Your task to perform on an android device: toggle airplane mode Image 0: 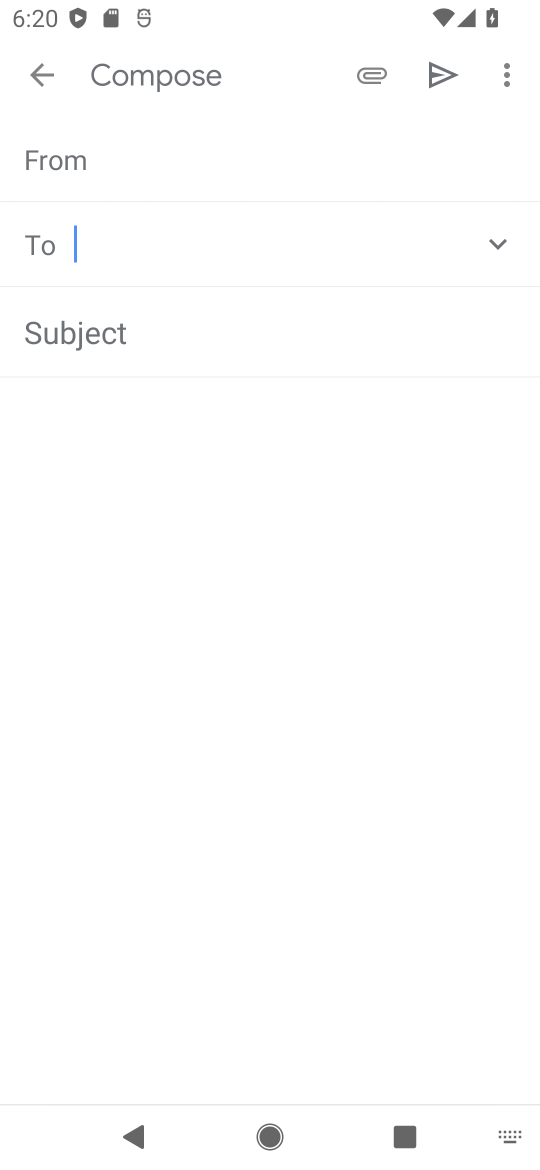
Step 0: press home button
Your task to perform on an android device: toggle airplane mode Image 1: 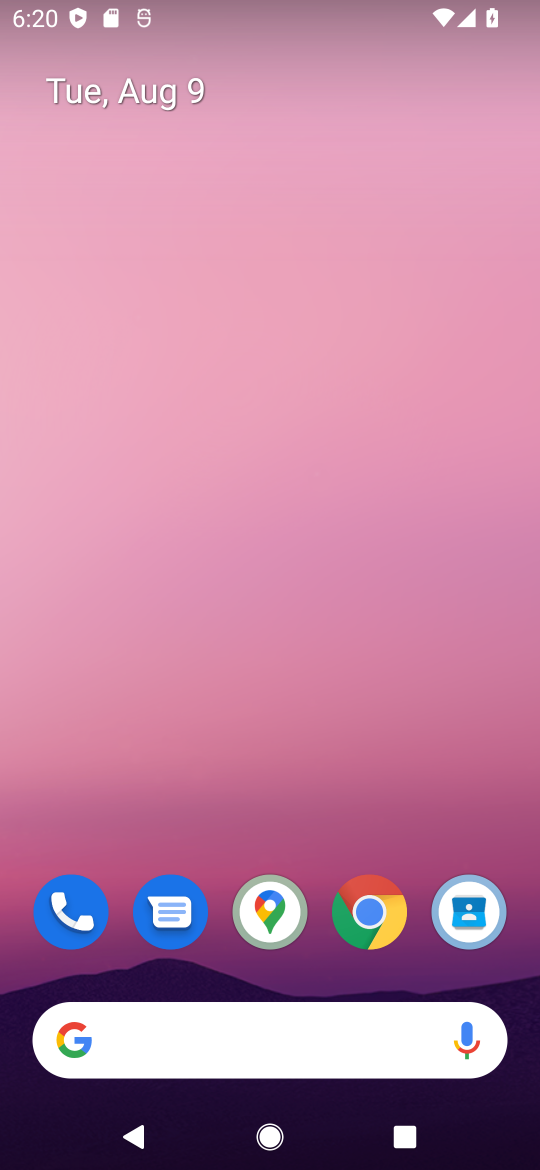
Step 1: drag from (373, 9) to (421, 592)
Your task to perform on an android device: toggle airplane mode Image 2: 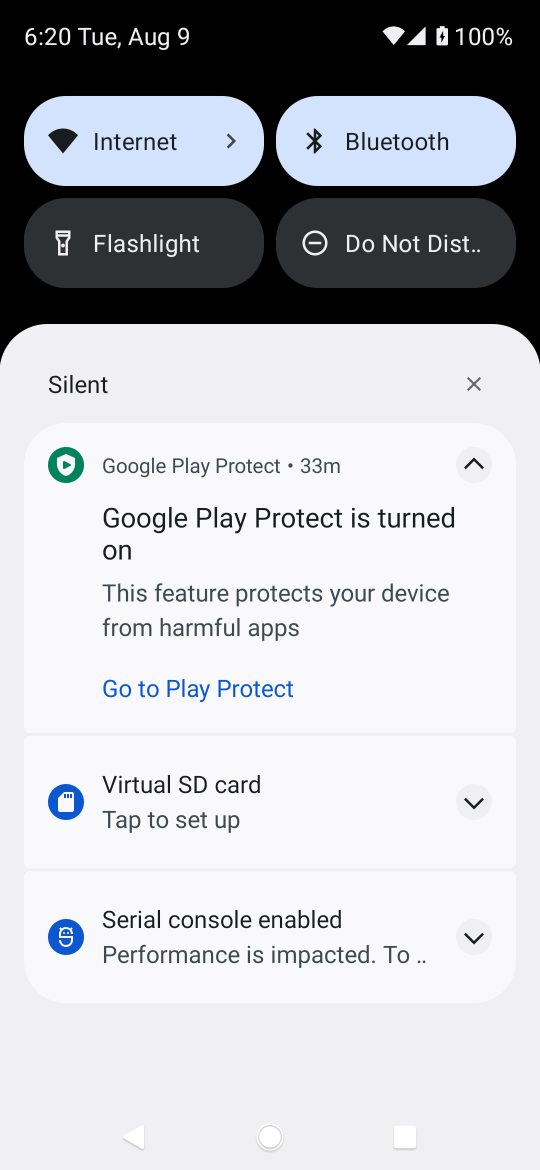
Step 2: drag from (257, 308) to (286, 1168)
Your task to perform on an android device: toggle airplane mode Image 3: 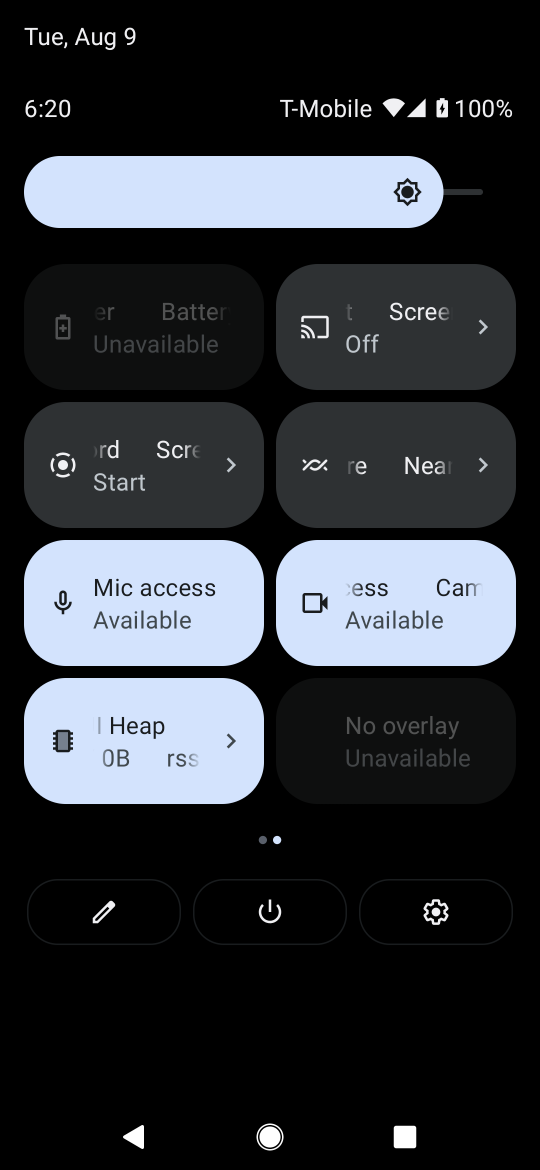
Step 3: drag from (35, 376) to (535, 490)
Your task to perform on an android device: toggle airplane mode Image 4: 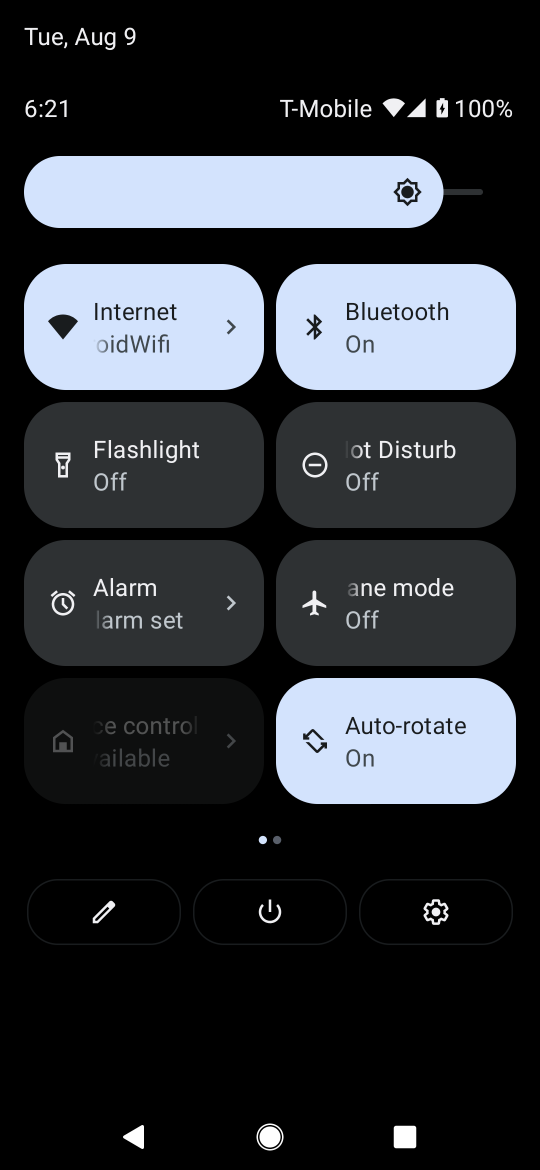
Step 4: click (380, 596)
Your task to perform on an android device: toggle airplane mode Image 5: 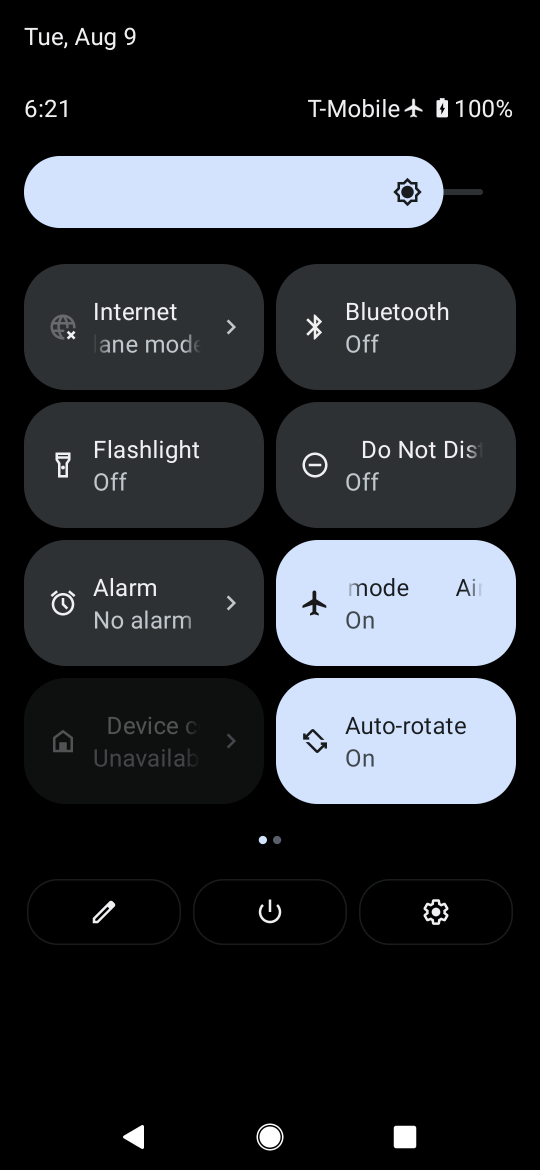
Step 5: task complete